Your task to perform on an android device: turn on the 24-hour format for clock Image 0: 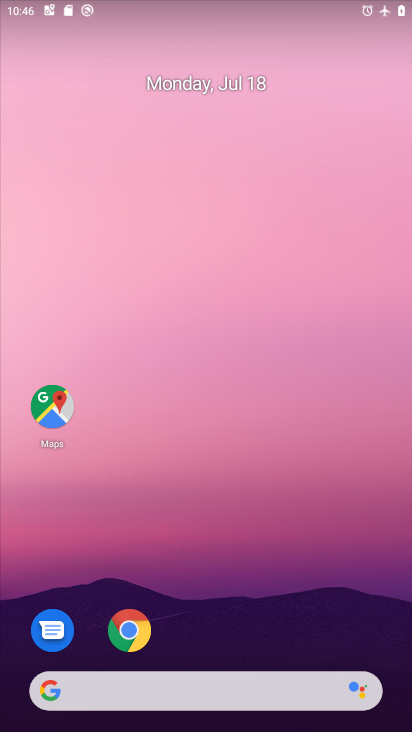
Step 0: drag from (212, 620) to (207, 178)
Your task to perform on an android device: turn on the 24-hour format for clock Image 1: 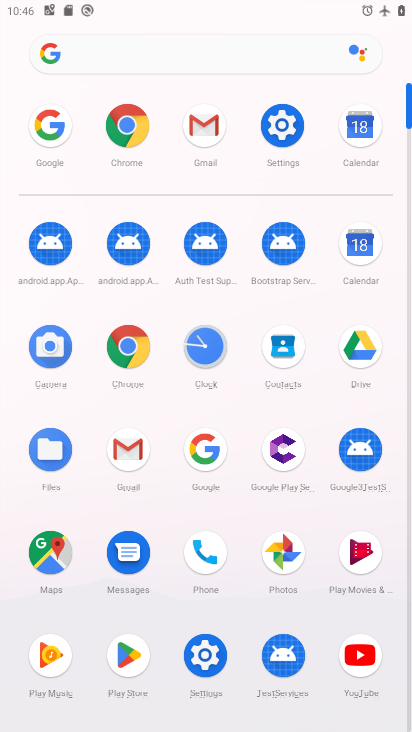
Step 1: click (224, 355)
Your task to perform on an android device: turn on the 24-hour format for clock Image 2: 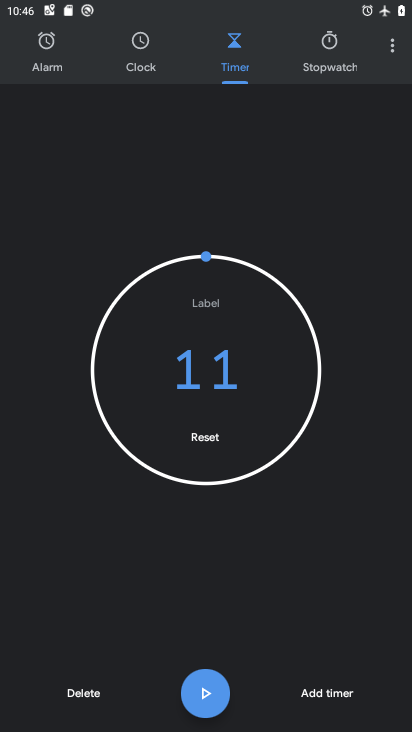
Step 2: click (393, 58)
Your task to perform on an android device: turn on the 24-hour format for clock Image 3: 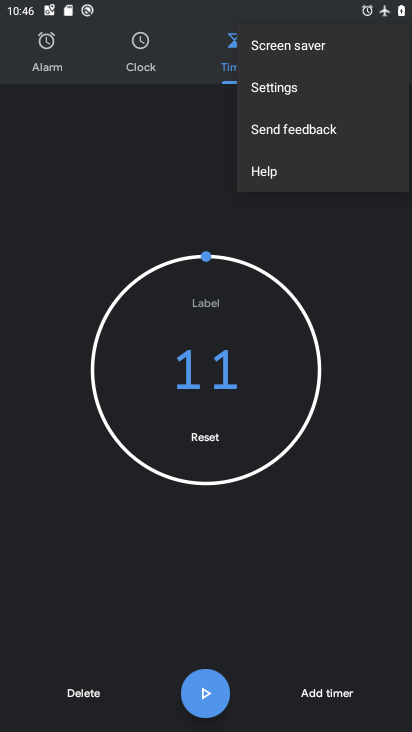
Step 3: click (299, 94)
Your task to perform on an android device: turn on the 24-hour format for clock Image 4: 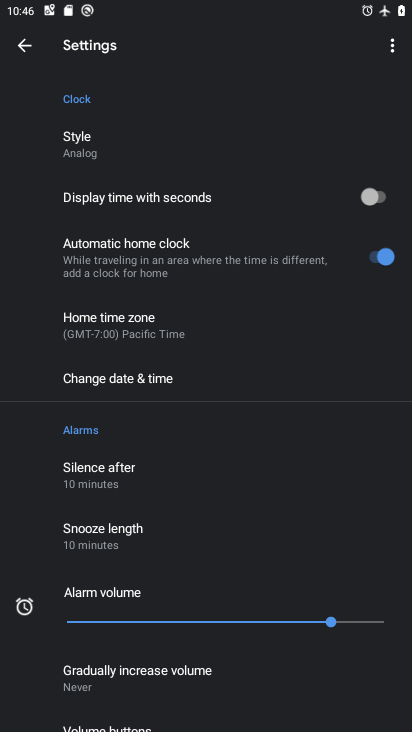
Step 4: click (148, 367)
Your task to perform on an android device: turn on the 24-hour format for clock Image 5: 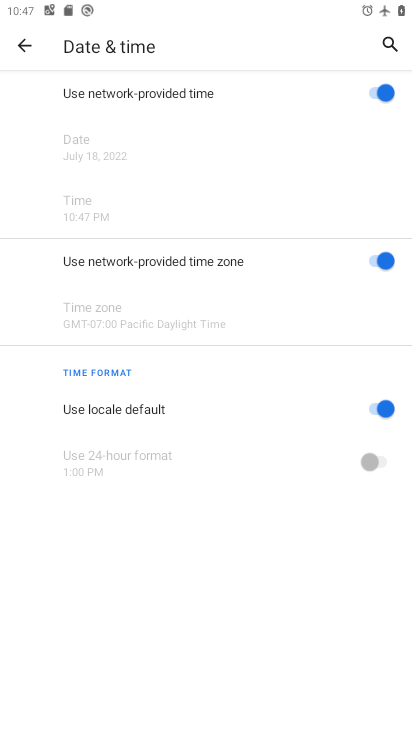
Step 5: click (375, 458)
Your task to perform on an android device: turn on the 24-hour format for clock Image 6: 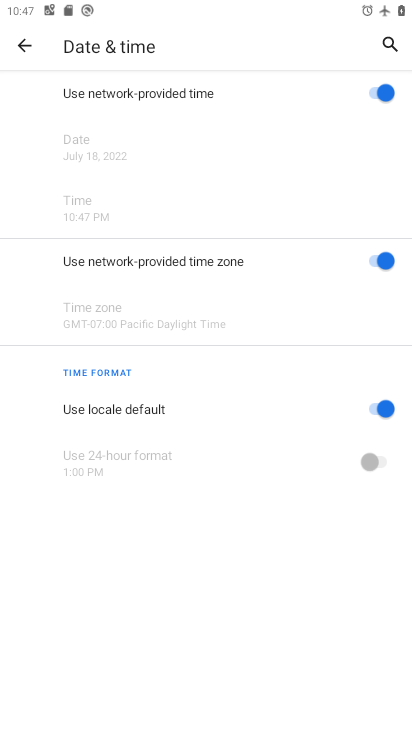
Step 6: click (367, 407)
Your task to perform on an android device: turn on the 24-hour format for clock Image 7: 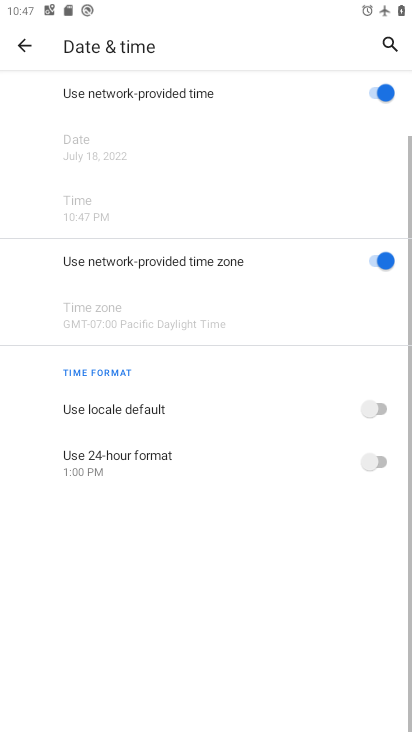
Step 7: click (382, 452)
Your task to perform on an android device: turn on the 24-hour format for clock Image 8: 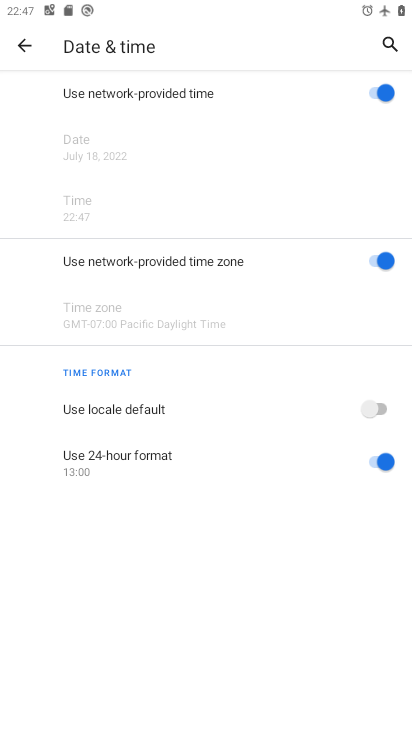
Step 8: task complete